Your task to perform on an android device: Go to Maps Image 0: 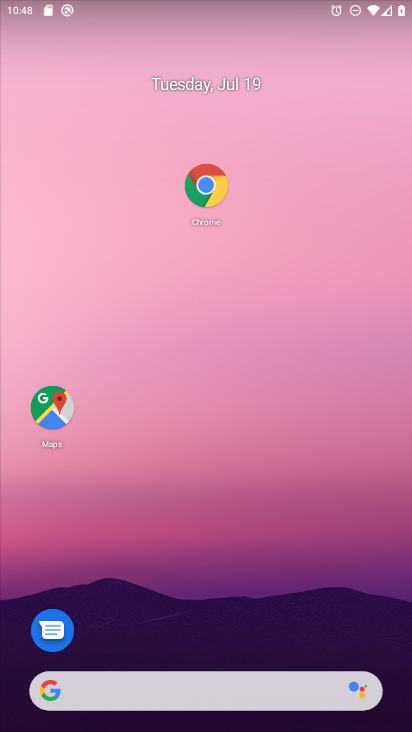
Step 0: drag from (224, 631) to (167, 198)
Your task to perform on an android device: Go to Maps Image 1: 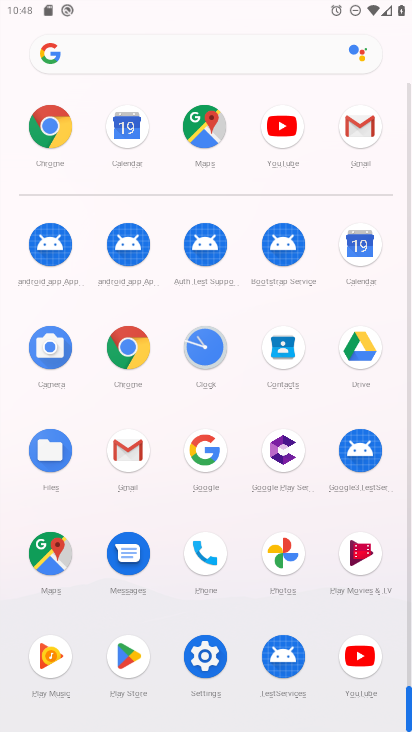
Step 1: drag from (190, 438) to (204, 208)
Your task to perform on an android device: Go to Maps Image 2: 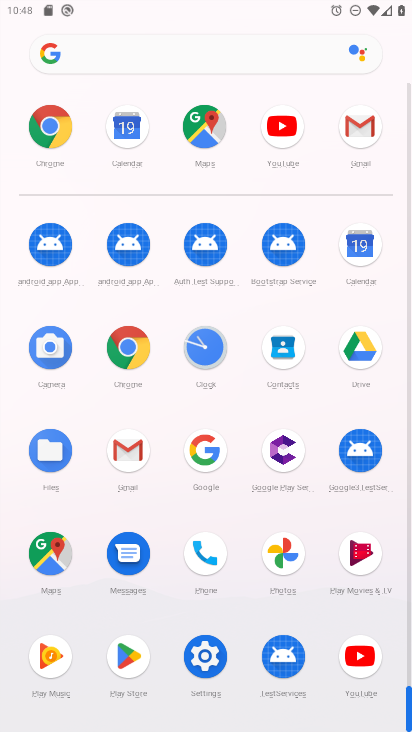
Step 2: click (52, 560)
Your task to perform on an android device: Go to Maps Image 3: 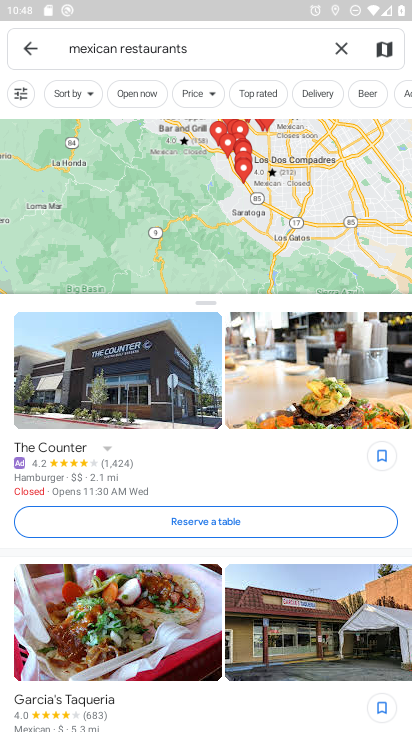
Step 3: task complete